Your task to perform on an android device: Go to calendar. Show me events next week Image 0: 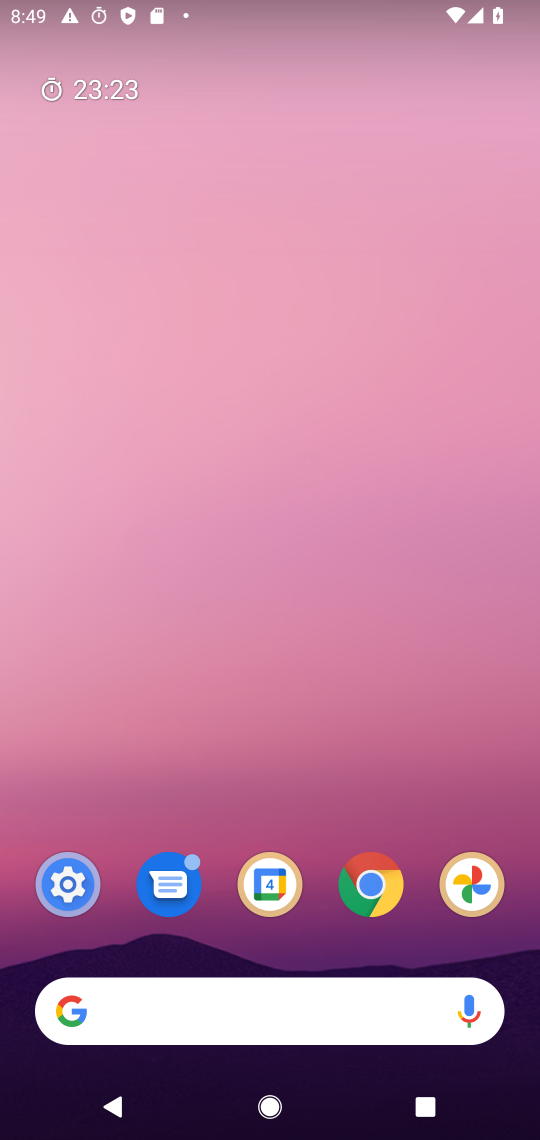
Step 0: press home button
Your task to perform on an android device: Go to calendar. Show me events next week Image 1: 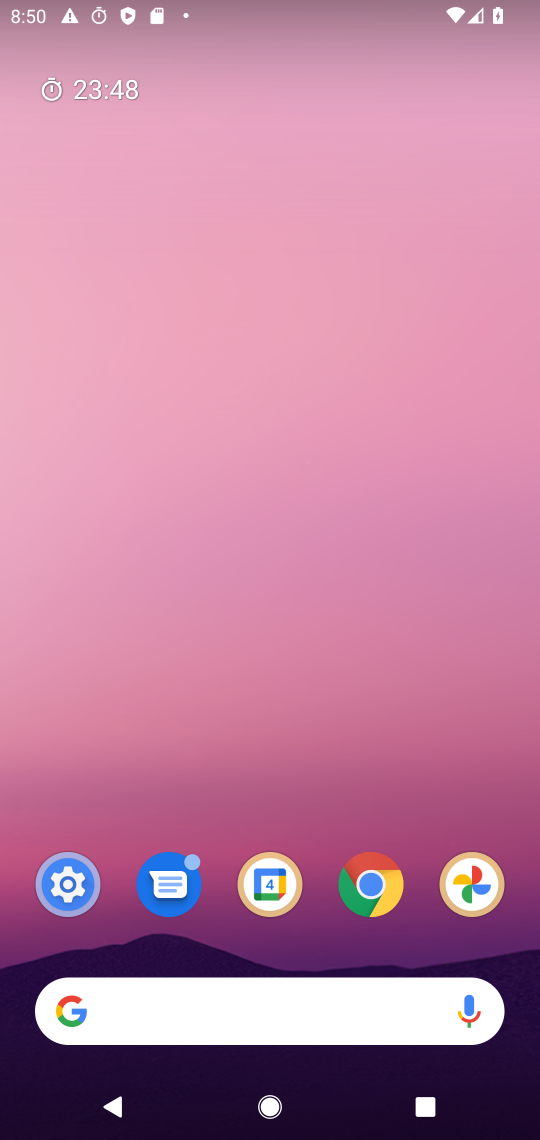
Step 1: click (281, 891)
Your task to perform on an android device: Go to calendar. Show me events next week Image 2: 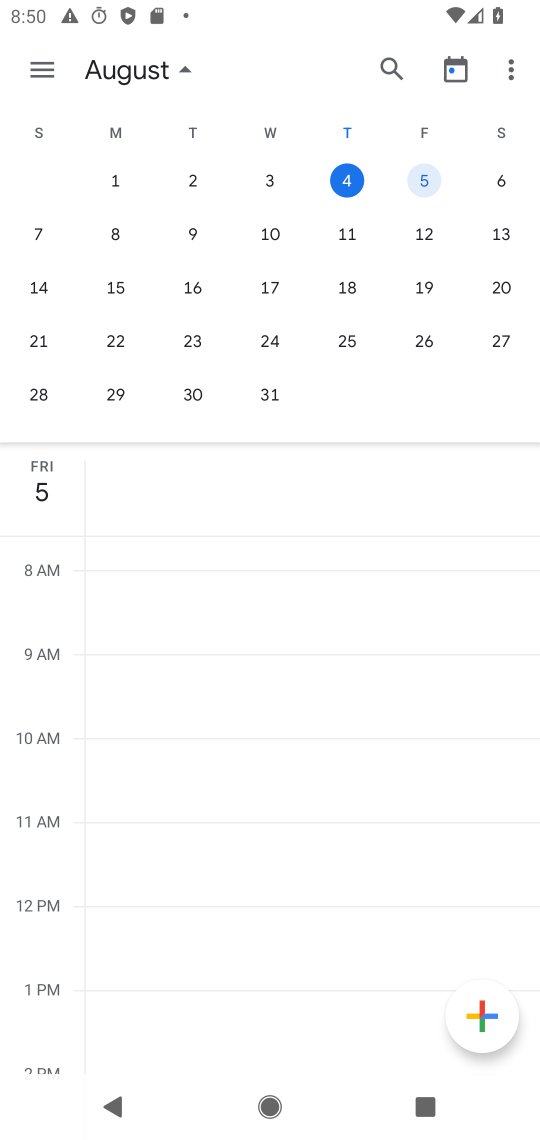
Step 2: click (42, 69)
Your task to perform on an android device: Go to calendar. Show me events next week Image 3: 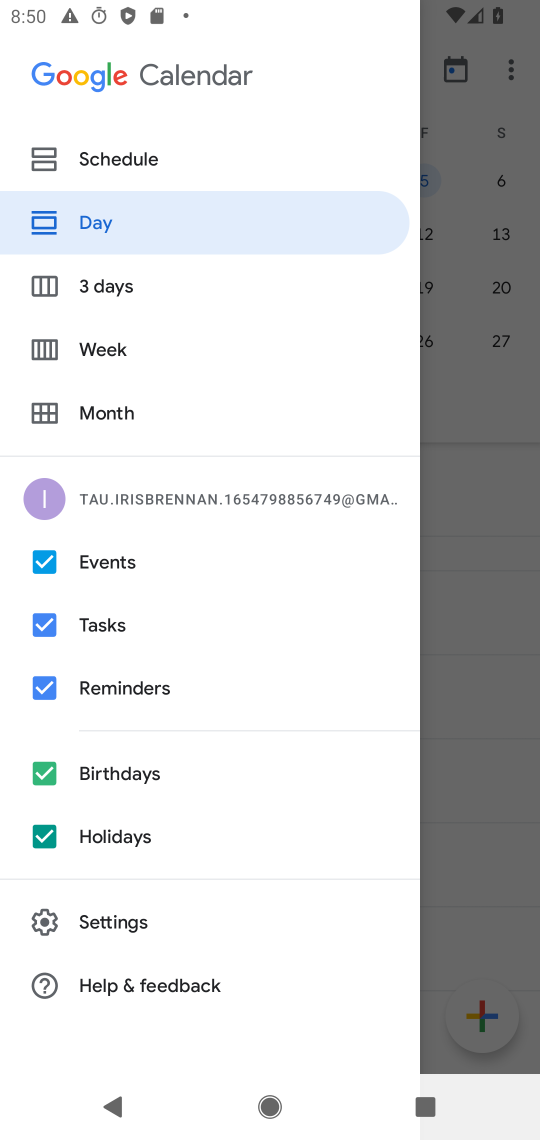
Step 3: click (122, 162)
Your task to perform on an android device: Go to calendar. Show me events next week Image 4: 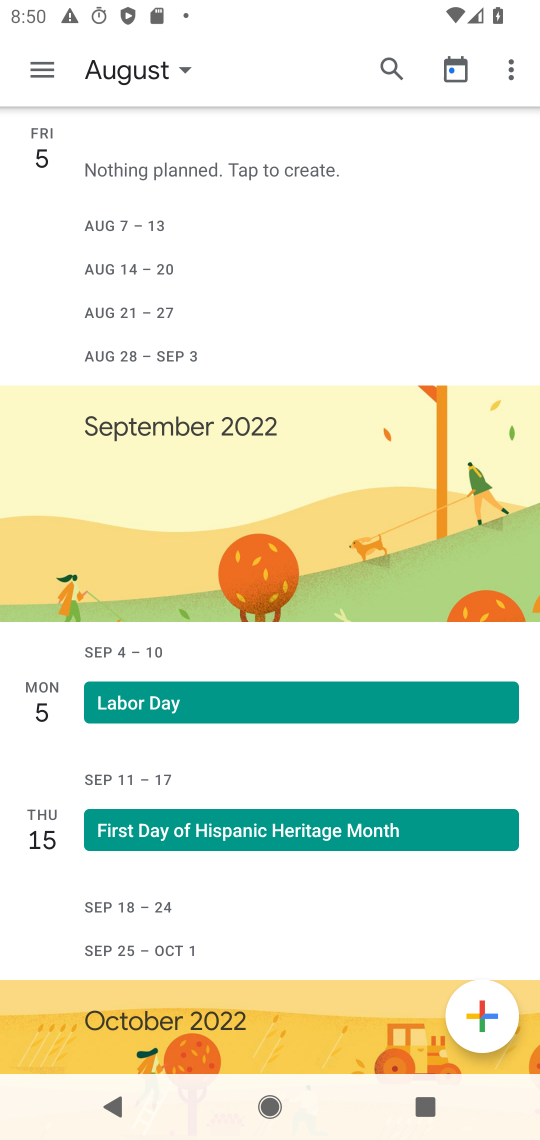
Step 4: task complete